Your task to perform on an android device: Search for Mexican restaurants on Maps Image 0: 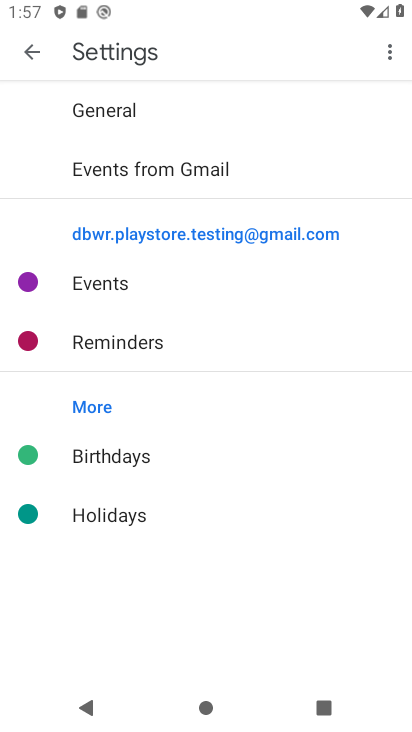
Step 0: press home button
Your task to perform on an android device: Search for Mexican restaurants on Maps Image 1: 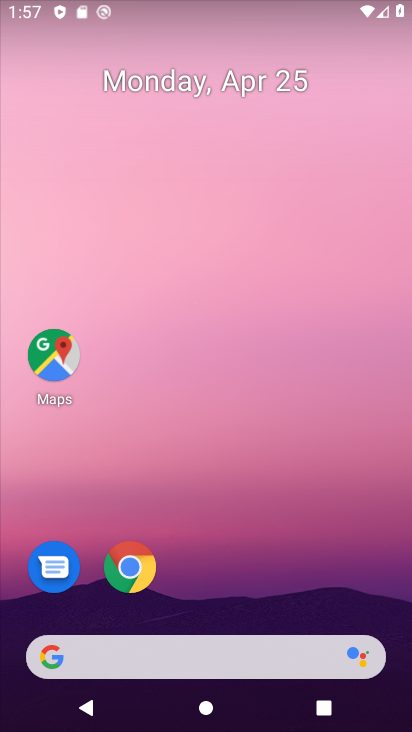
Step 1: click (61, 353)
Your task to perform on an android device: Search for Mexican restaurants on Maps Image 2: 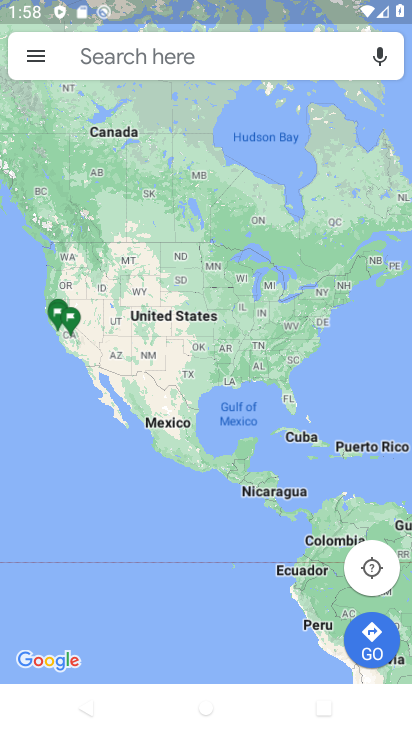
Step 2: click (224, 47)
Your task to perform on an android device: Search for Mexican restaurants on Maps Image 3: 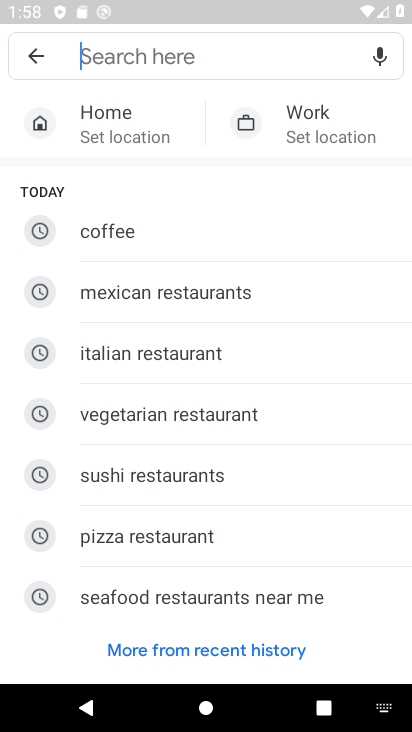
Step 3: click (345, 297)
Your task to perform on an android device: Search for Mexican restaurants on Maps Image 4: 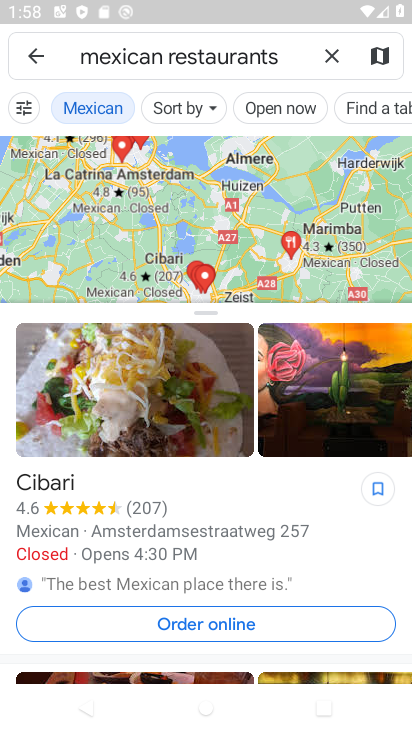
Step 4: task complete